Your task to perform on an android device: Open display settings Image 0: 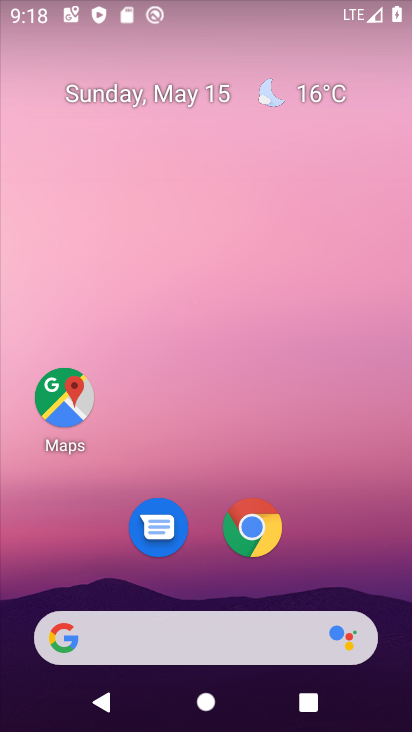
Step 0: drag from (342, 517) to (332, 14)
Your task to perform on an android device: Open display settings Image 1: 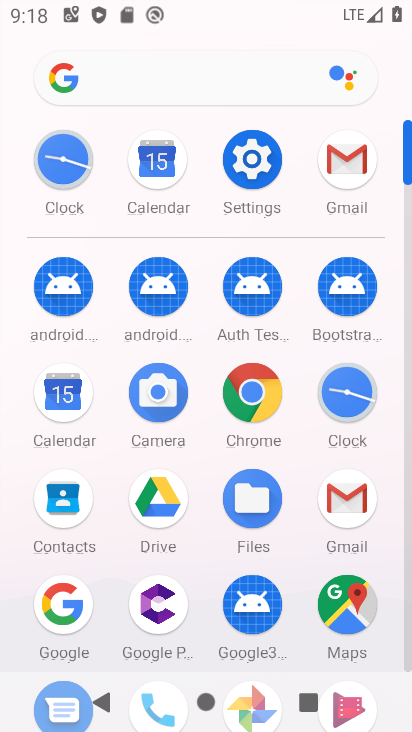
Step 1: click (257, 160)
Your task to perform on an android device: Open display settings Image 2: 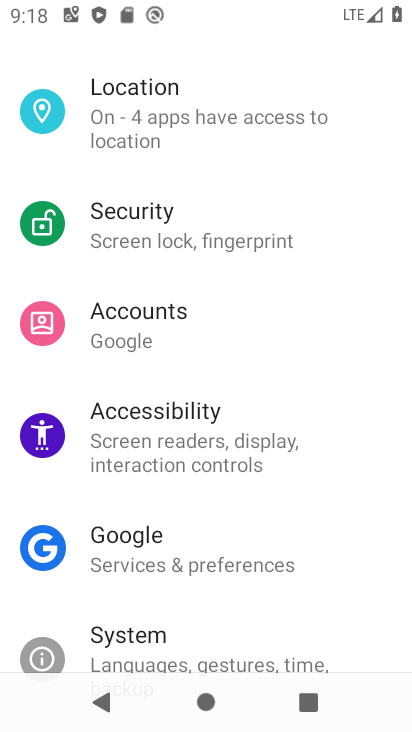
Step 2: drag from (341, 248) to (310, 467)
Your task to perform on an android device: Open display settings Image 3: 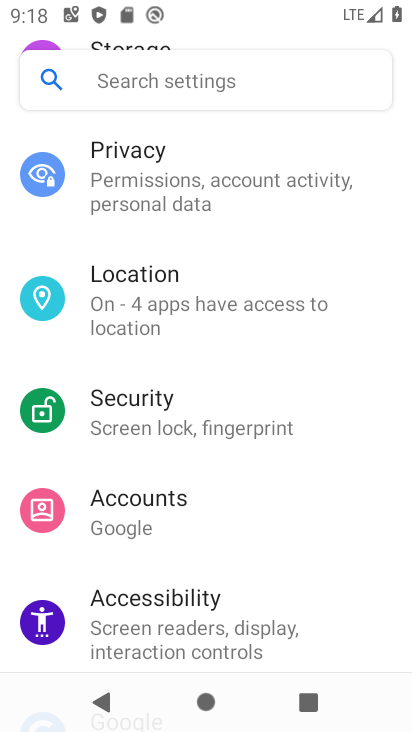
Step 3: drag from (310, 238) to (278, 519)
Your task to perform on an android device: Open display settings Image 4: 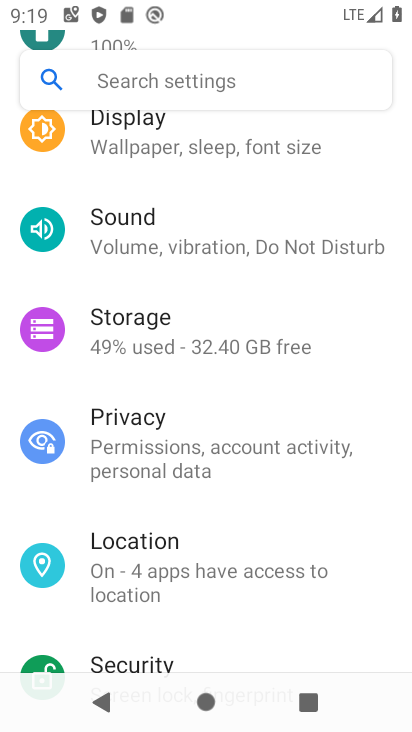
Step 4: click (117, 133)
Your task to perform on an android device: Open display settings Image 5: 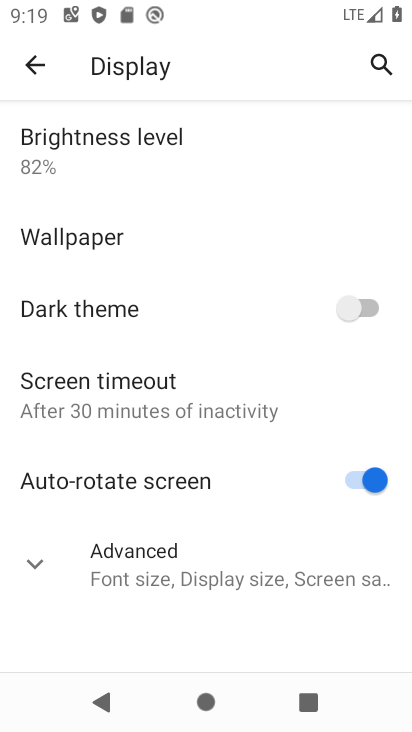
Step 5: task complete